Your task to perform on an android device: Show me the alarms in the clock app Image 0: 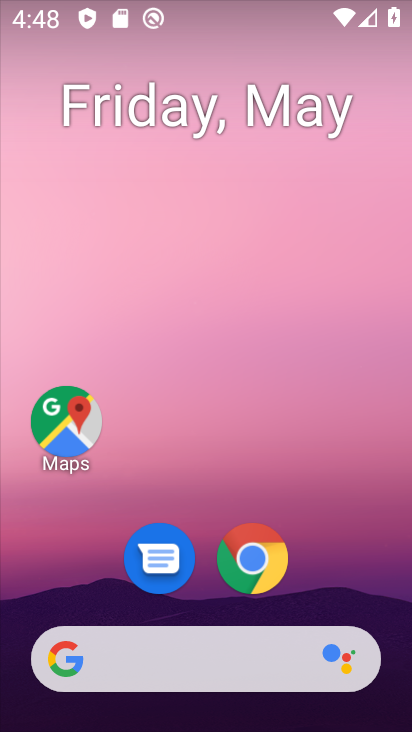
Step 0: drag from (391, 633) to (319, 141)
Your task to perform on an android device: Show me the alarms in the clock app Image 1: 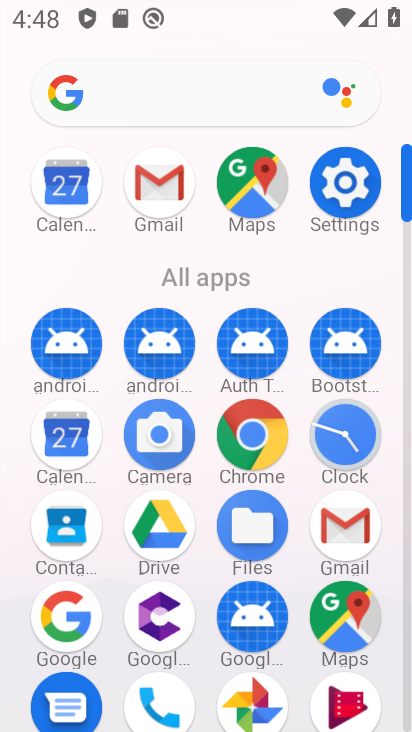
Step 1: click (359, 443)
Your task to perform on an android device: Show me the alarms in the clock app Image 2: 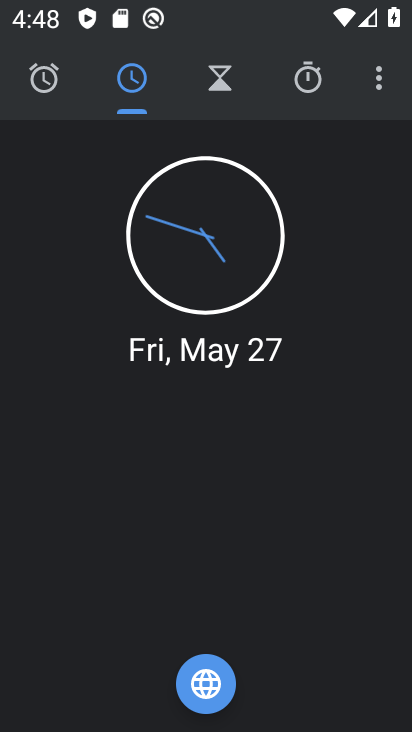
Step 2: click (41, 87)
Your task to perform on an android device: Show me the alarms in the clock app Image 3: 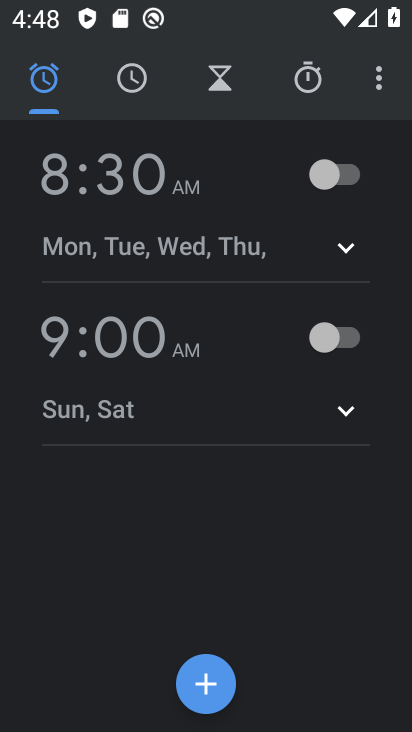
Step 3: task complete